Your task to perform on an android device: choose inbox layout in the gmail app Image 0: 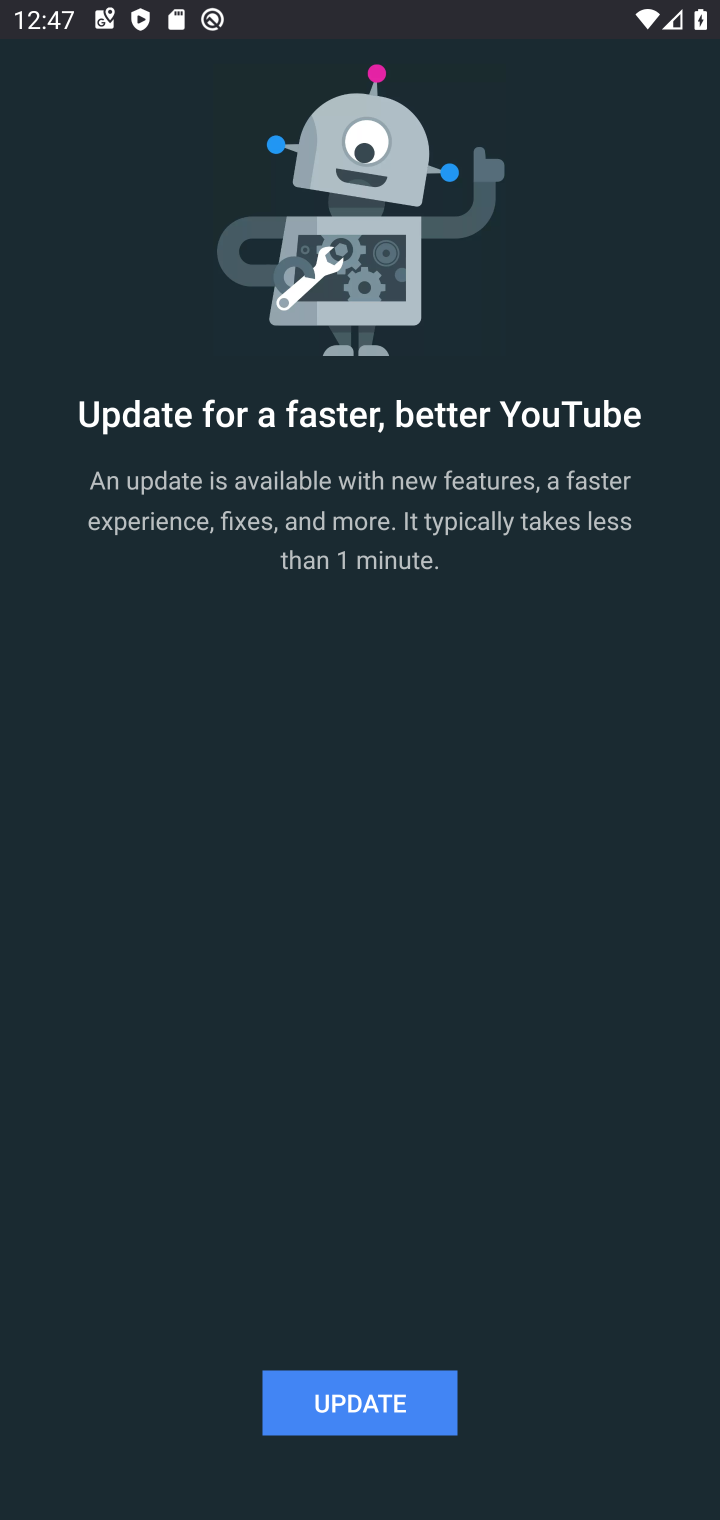
Step 0: drag from (318, 1273) to (573, 17)
Your task to perform on an android device: choose inbox layout in the gmail app Image 1: 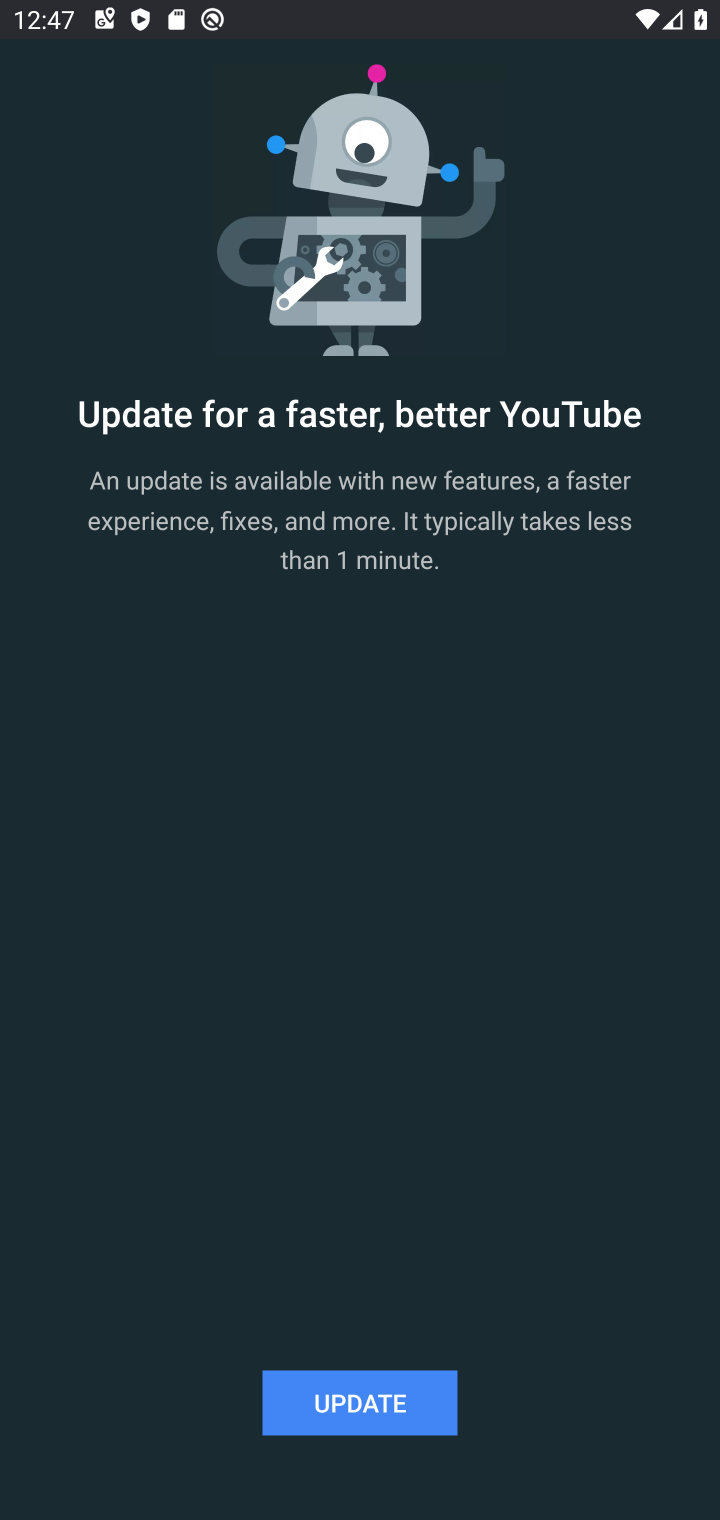
Step 1: press home button
Your task to perform on an android device: choose inbox layout in the gmail app Image 2: 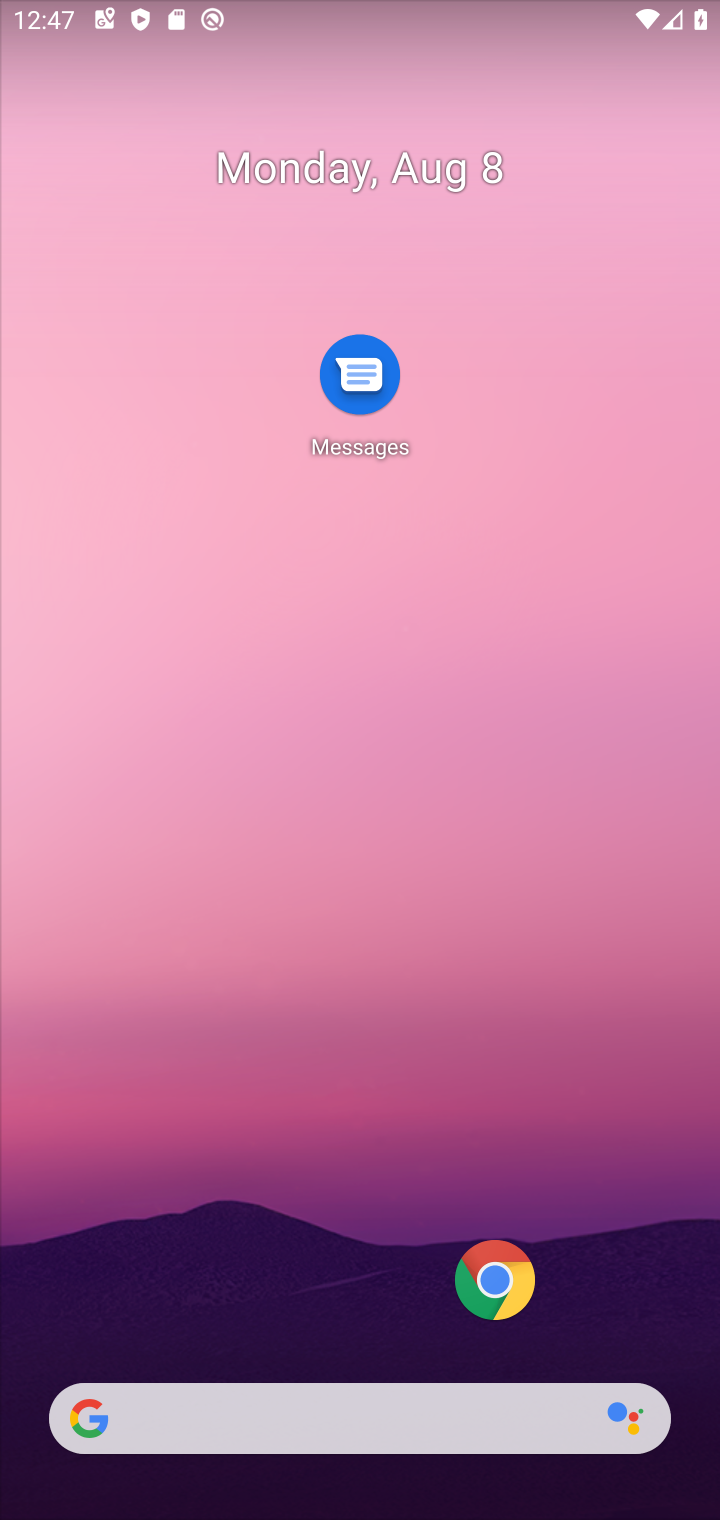
Step 2: drag from (383, 889) to (454, 93)
Your task to perform on an android device: choose inbox layout in the gmail app Image 3: 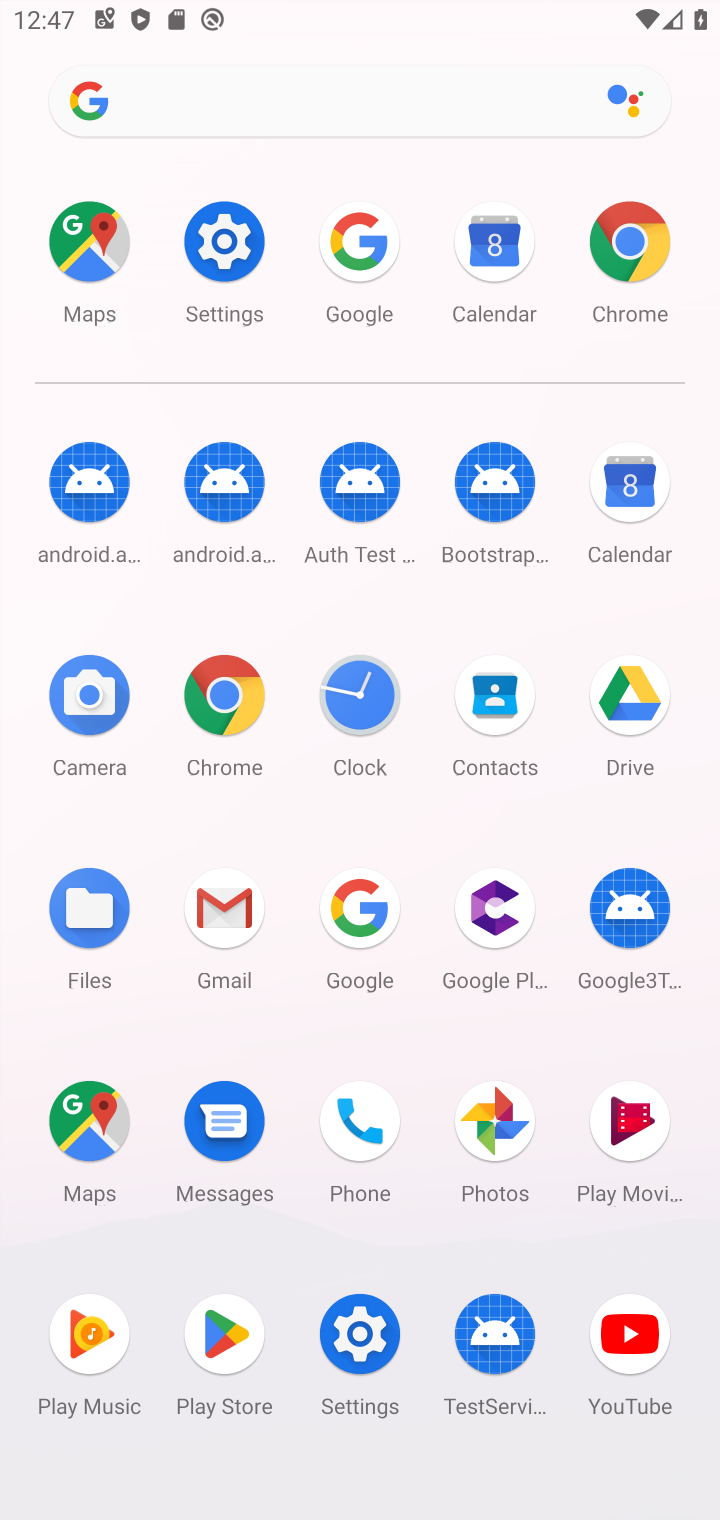
Step 3: click (217, 922)
Your task to perform on an android device: choose inbox layout in the gmail app Image 4: 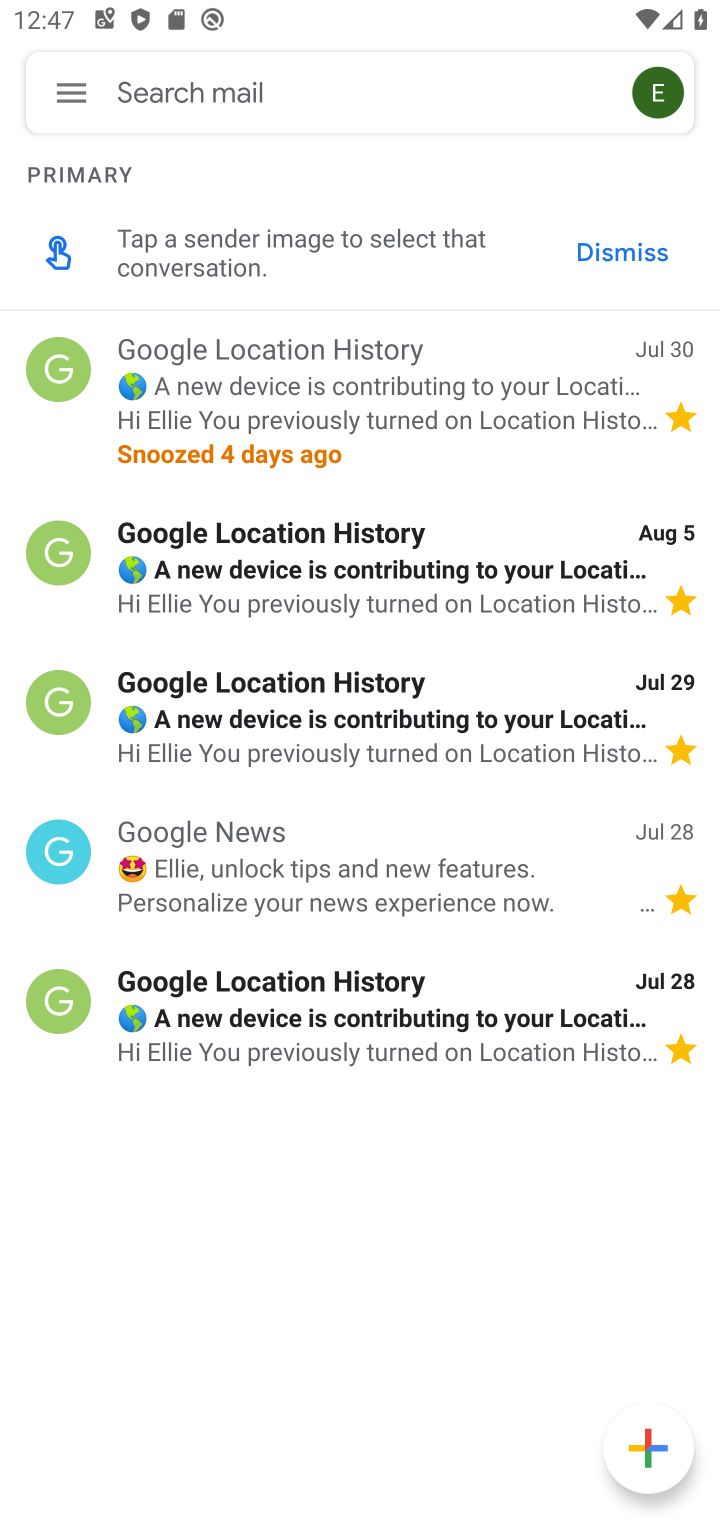
Step 4: click (61, 71)
Your task to perform on an android device: choose inbox layout in the gmail app Image 5: 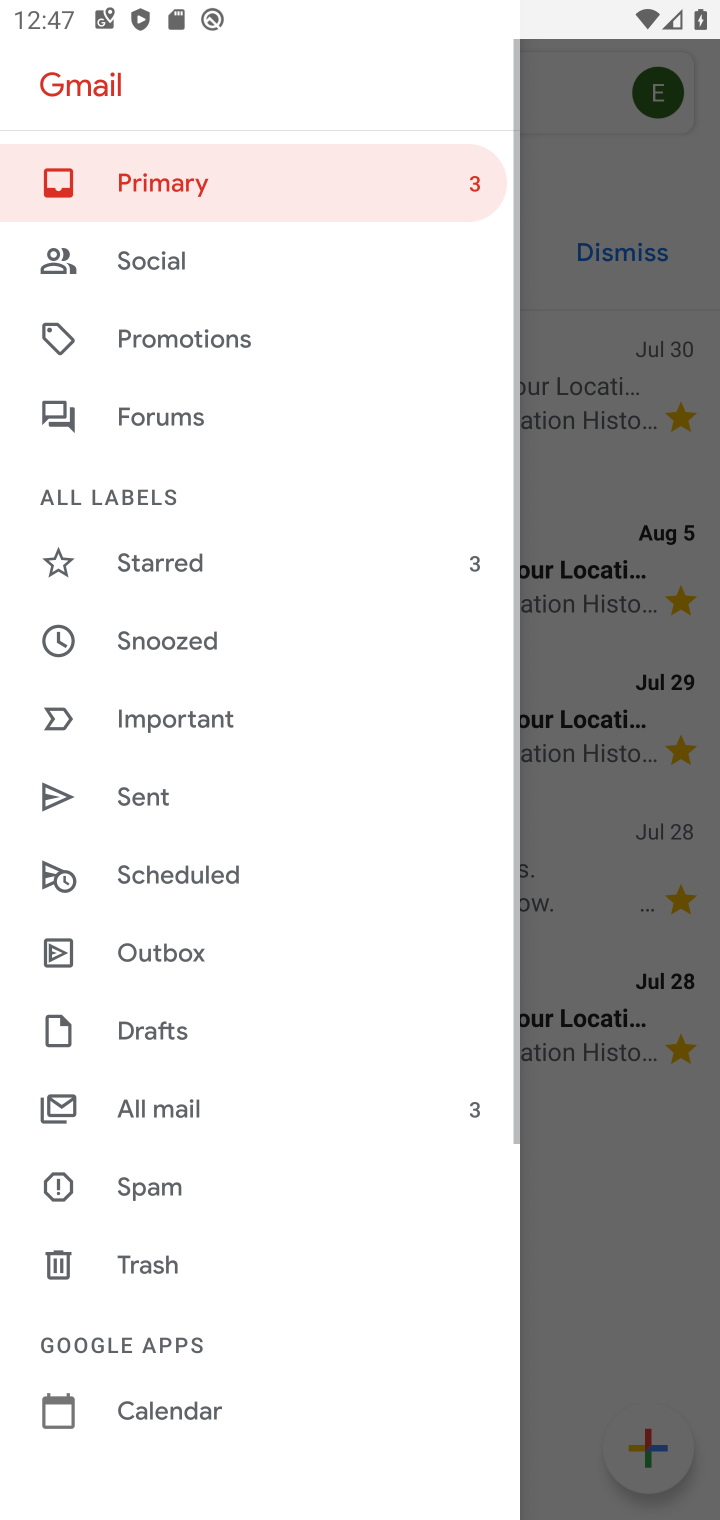
Step 5: drag from (181, 1309) to (324, 45)
Your task to perform on an android device: choose inbox layout in the gmail app Image 6: 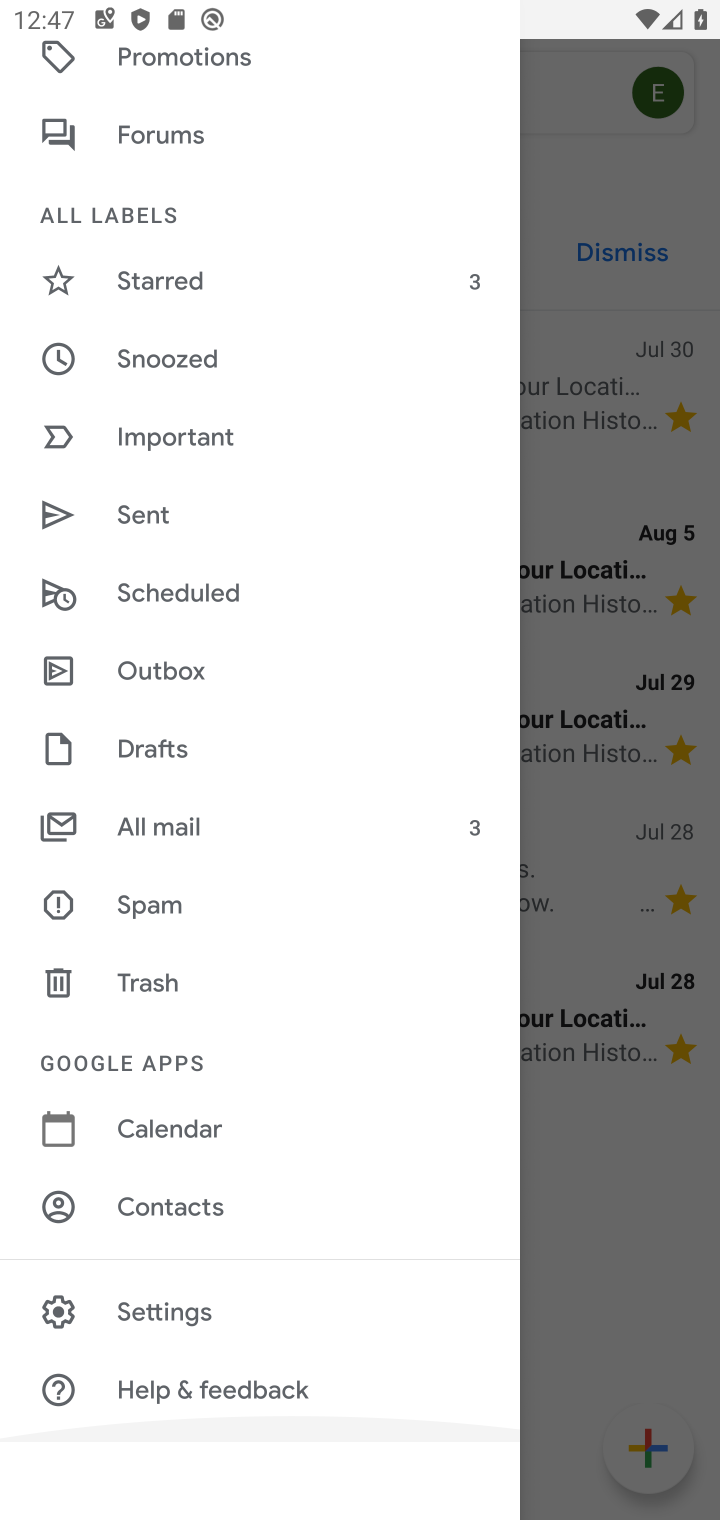
Step 6: click (151, 1298)
Your task to perform on an android device: choose inbox layout in the gmail app Image 7: 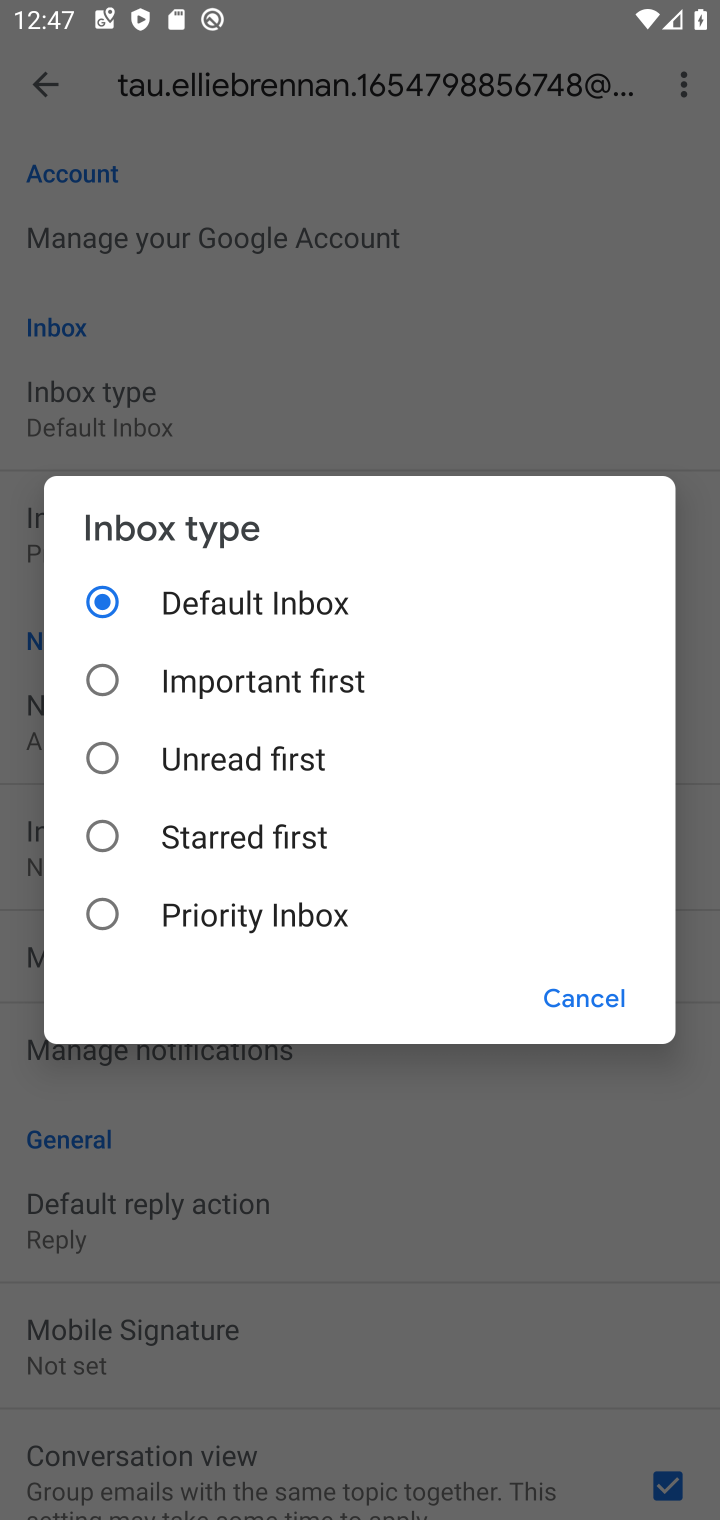
Step 7: click (112, 916)
Your task to perform on an android device: choose inbox layout in the gmail app Image 8: 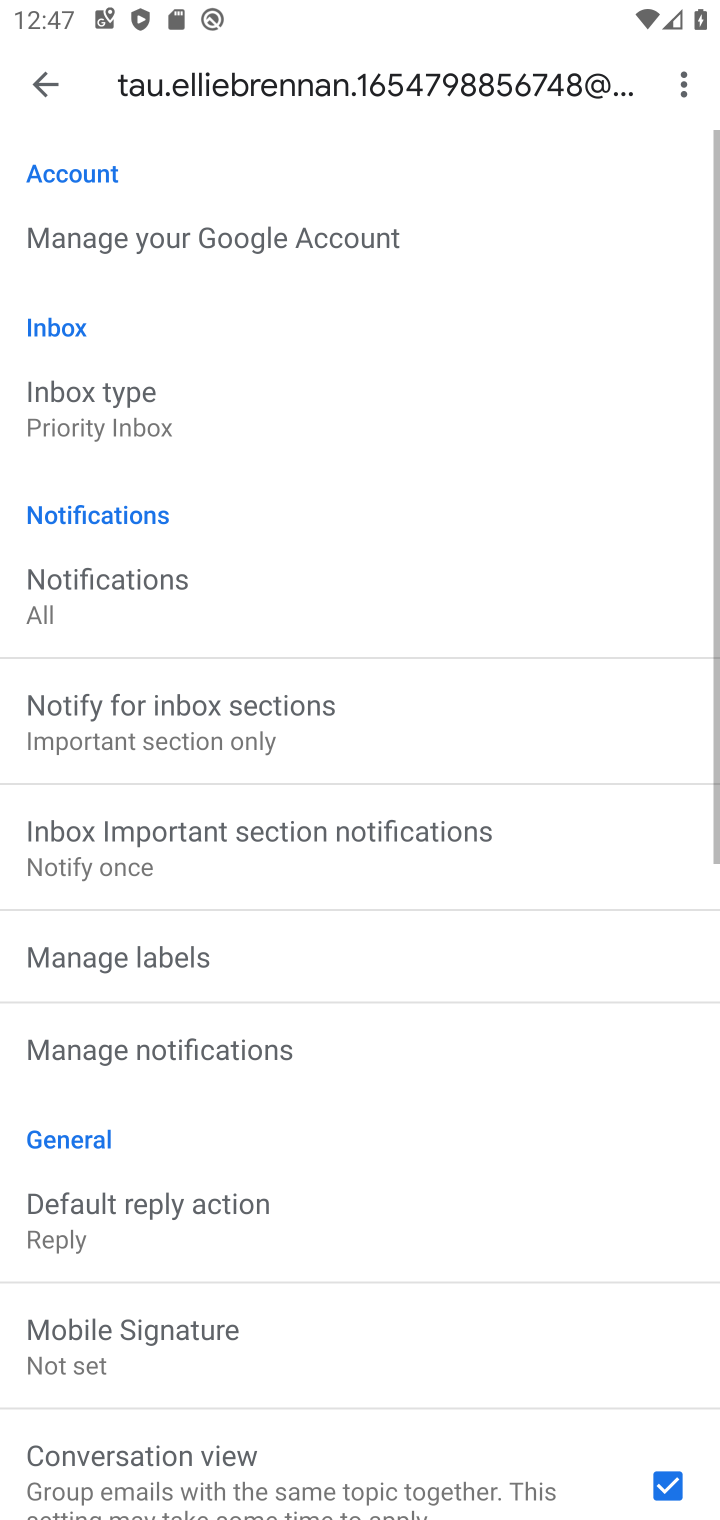
Step 8: task complete